Your task to perform on an android device: Open calendar and show me the first week of next month Image 0: 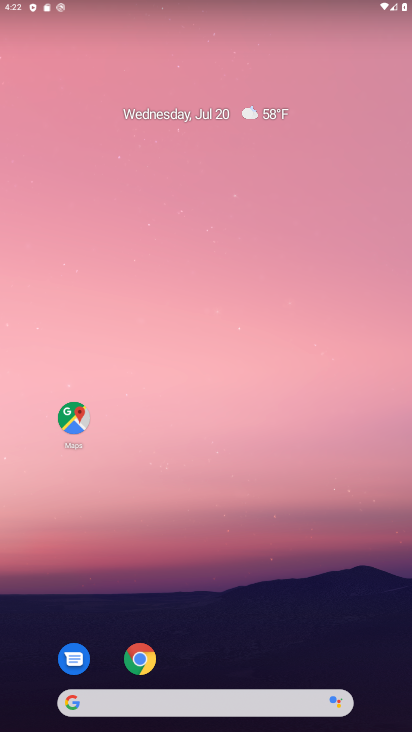
Step 0: drag from (193, 696) to (196, 218)
Your task to perform on an android device: Open calendar and show me the first week of next month Image 1: 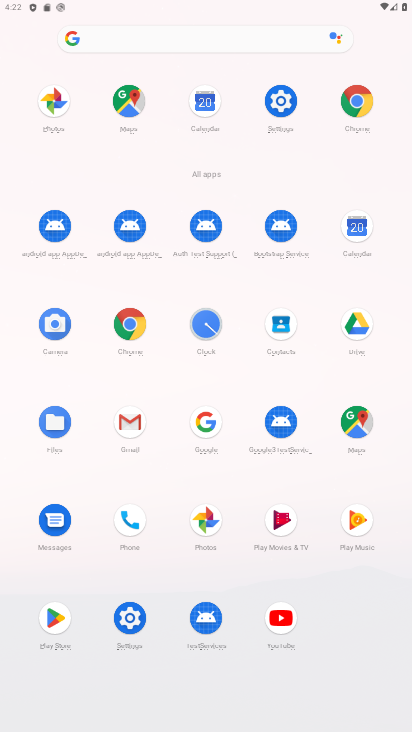
Step 1: click (359, 223)
Your task to perform on an android device: Open calendar and show me the first week of next month Image 2: 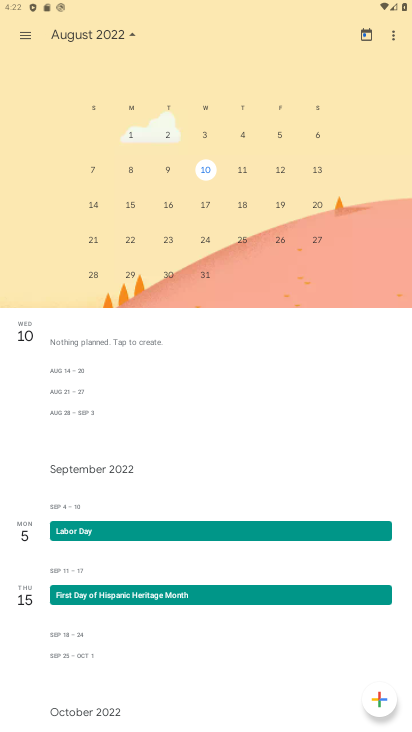
Step 2: drag from (59, 199) to (396, 240)
Your task to perform on an android device: Open calendar and show me the first week of next month Image 3: 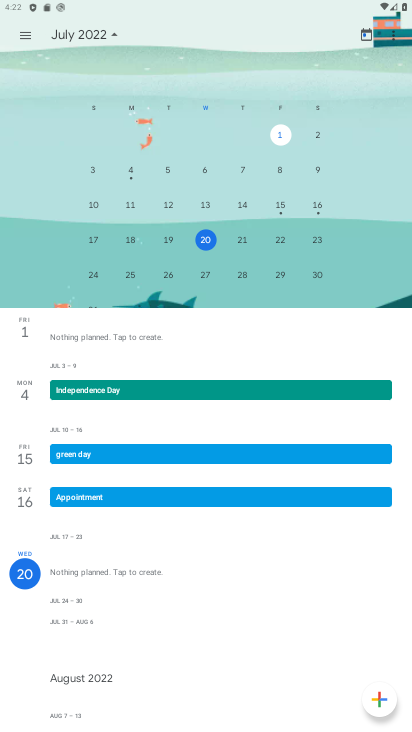
Step 3: drag from (361, 224) to (408, 205)
Your task to perform on an android device: Open calendar and show me the first week of next month Image 4: 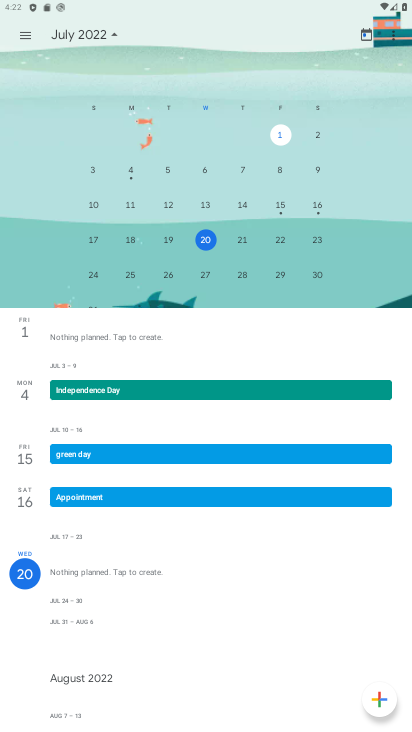
Step 4: drag from (347, 207) to (3, 248)
Your task to perform on an android device: Open calendar and show me the first week of next month Image 5: 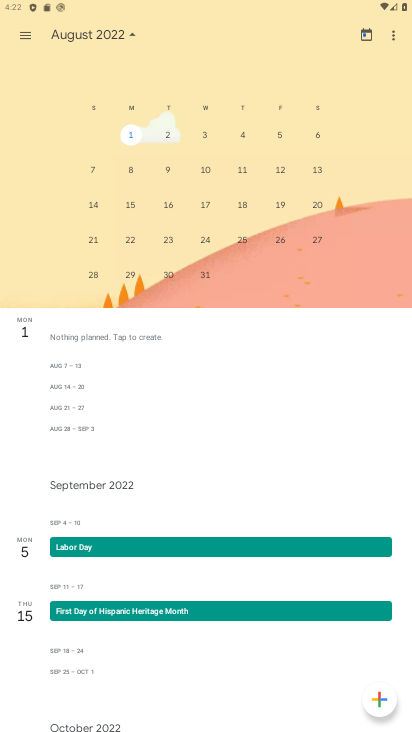
Step 5: click (200, 132)
Your task to perform on an android device: Open calendar and show me the first week of next month Image 6: 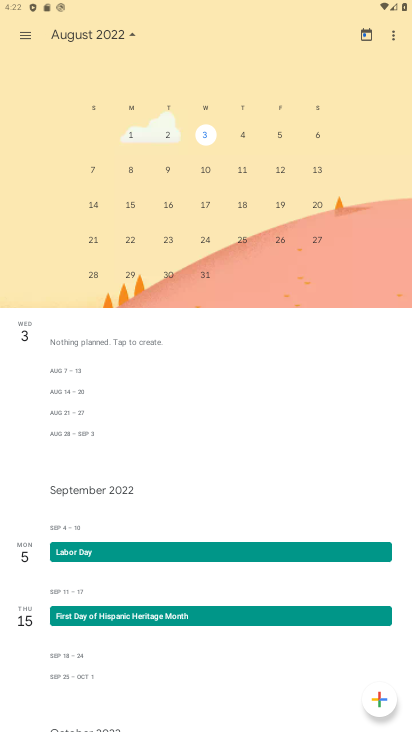
Step 6: click (19, 36)
Your task to perform on an android device: Open calendar and show me the first week of next month Image 7: 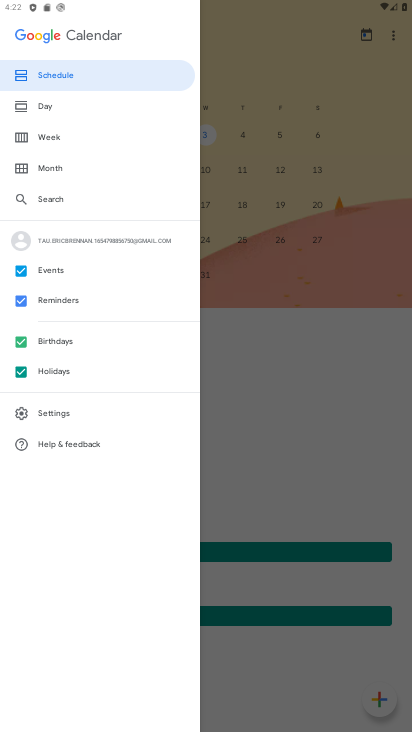
Step 7: click (50, 142)
Your task to perform on an android device: Open calendar and show me the first week of next month Image 8: 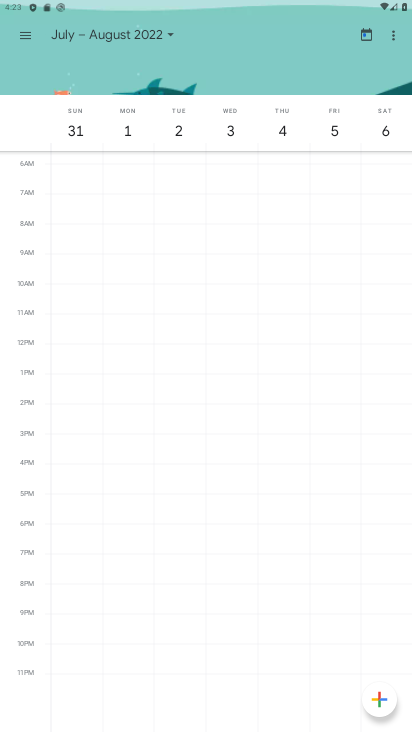
Step 8: task complete